Your task to perform on an android device: Show me recent news Image 0: 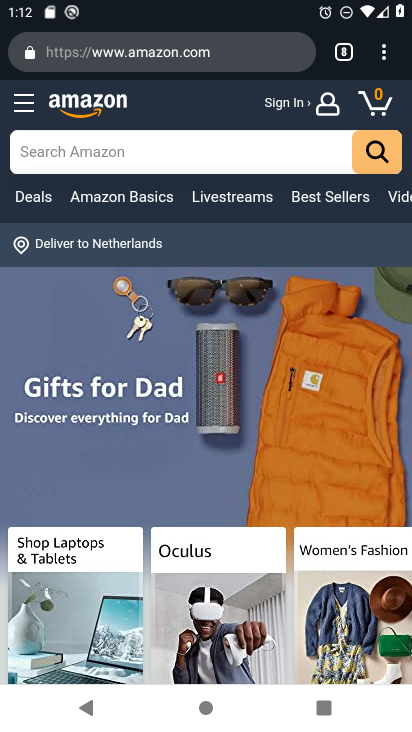
Step 0: drag from (242, 578) to (245, 439)
Your task to perform on an android device: Show me recent news Image 1: 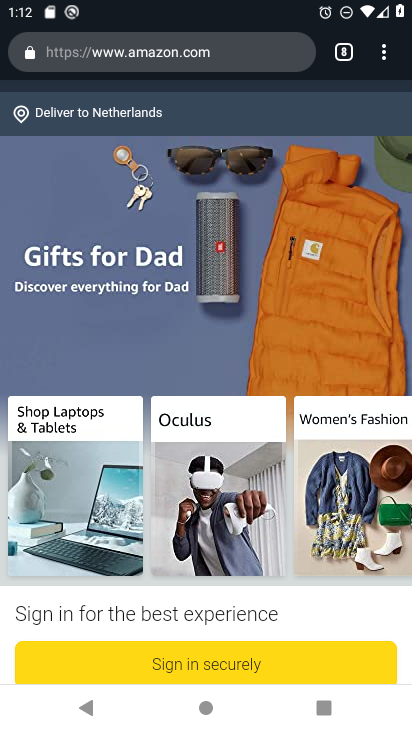
Step 1: press home button
Your task to perform on an android device: Show me recent news Image 2: 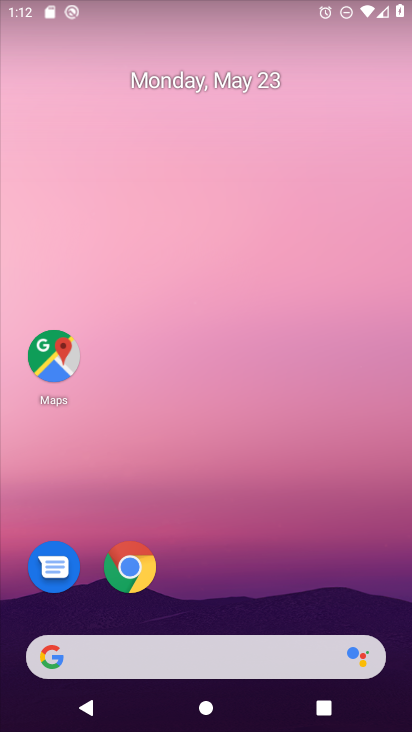
Step 2: click (210, 646)
Your task to perform on an android device: Show me recent news Image 3: 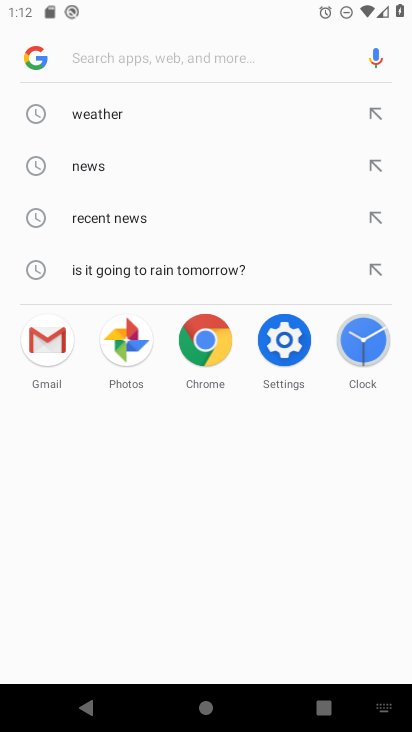
Step 3: click (56, 223)
Your task to perform on an android device: Show me recent news Image 4: 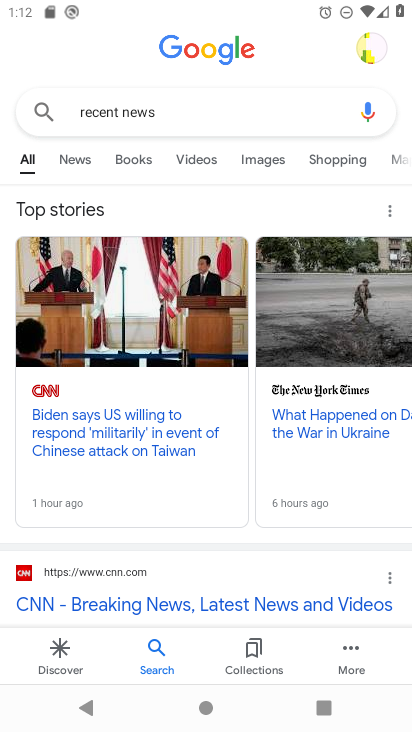
Step 4: task complete